Your task to perform on an android device: Open my contact list Image 0: 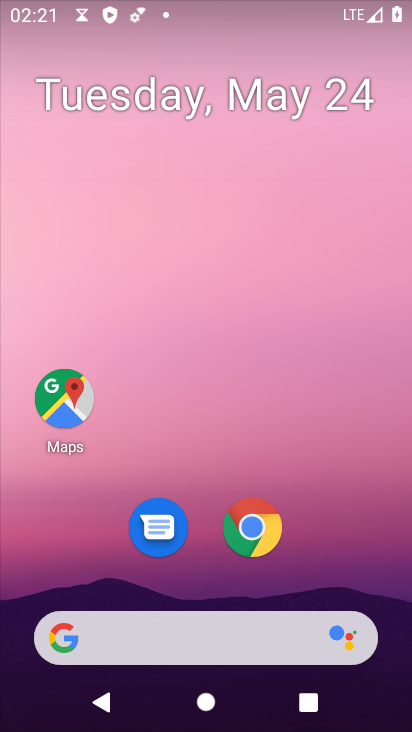
Step 0: press home button
Your task to perform on an android device: Open my contact list Image 1: 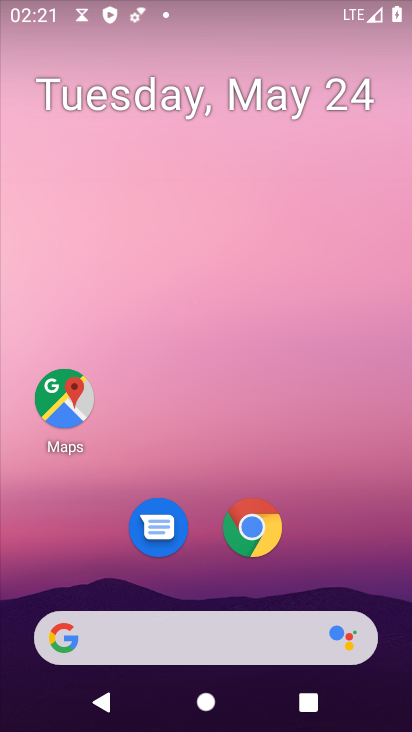
Step 1: drag from (159, 627) to (280, 145)
Your task to perform on an android device: Open my contact list Image 2: 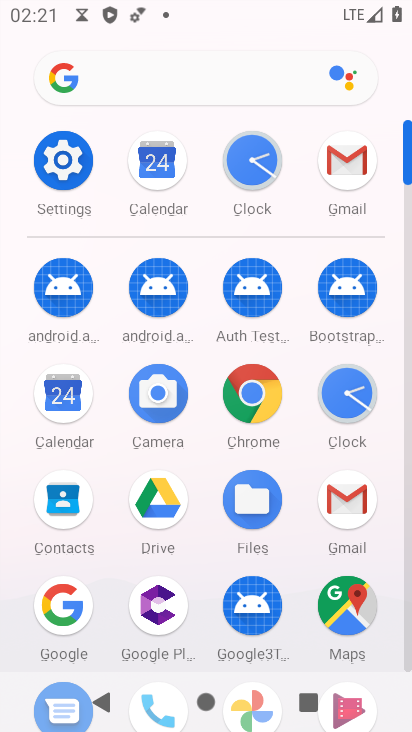
Step 2: click (73, 502)
Your task to perform on an android device: Open my contact list Image 3: 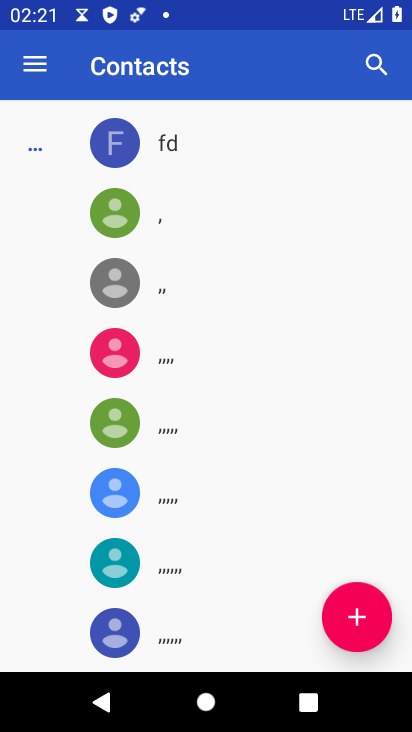
Step 3: task complete